Your task to perform on an android device: Open Maps and search for coffee Image 0: 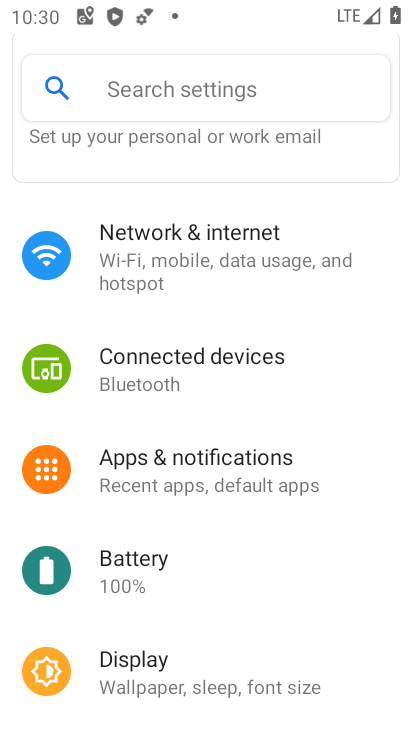
Step 0: press home button
Your task to perform on an android device: Open Maps and search for coffee Image 1: 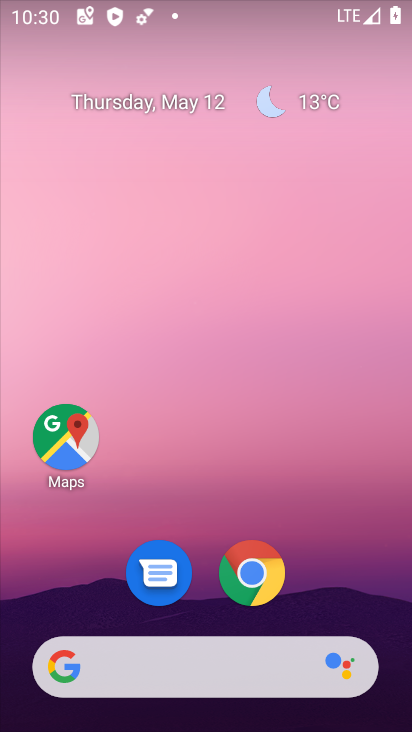
Step 1: click (67, 463)
Your task to perform on an android device: Open Maps and search for coffee Image 2: 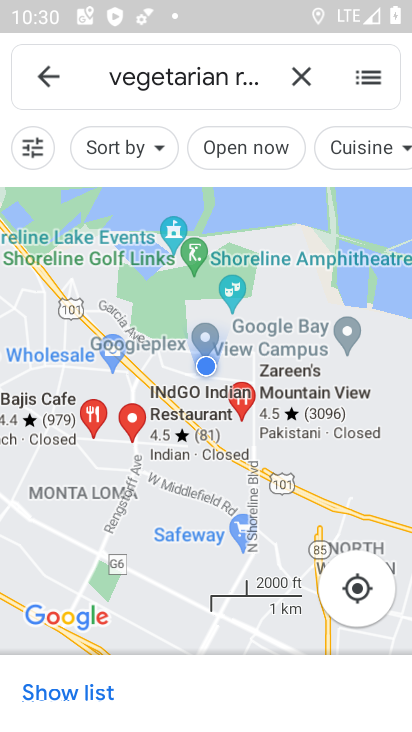
Step 2: click (301, 77)
Your task to perform on an android device: Open Maps and search for coffee Image 3: 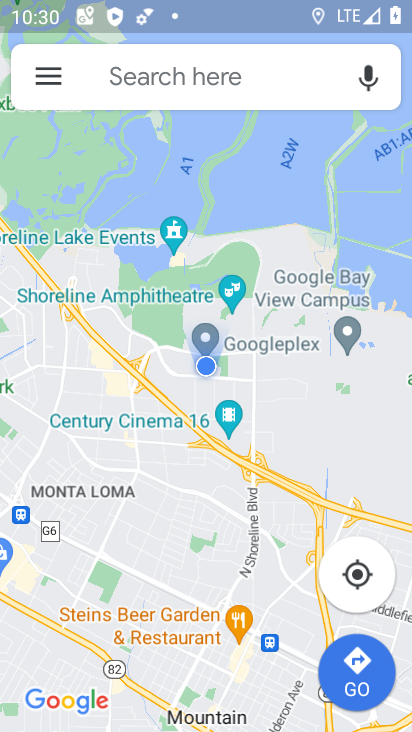
Step 3: click (271, 95)
Your task to perform on an android device: Open Maps and search for coffee Image 4: 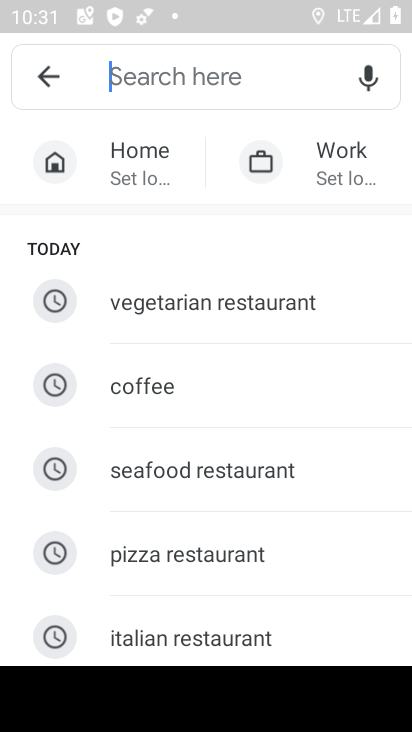
Step 4: click (136, 384)
Your task to perform on an android device: Open Maps and search for coffee Image 5: 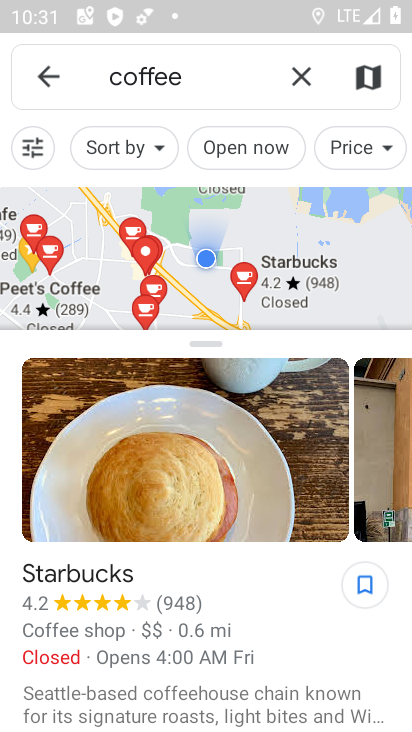
Step 5: task complete